Your task to perform on an android device: open device folders in google photos Image 0: 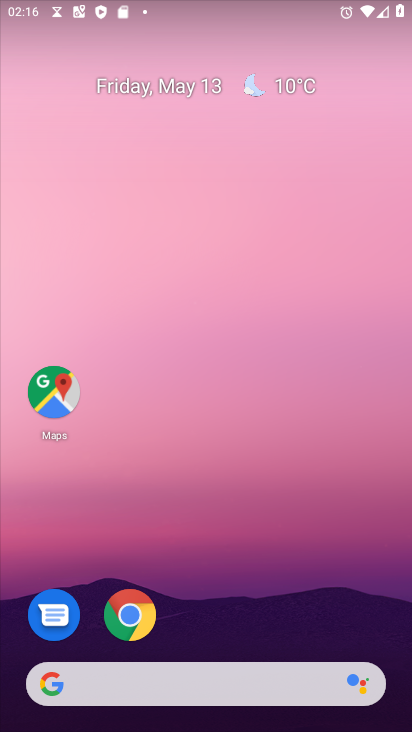
Step 0: drag from (226, 618) to (87, 112)
Your task to perform on an android device: open device folders in google photos Image 1: 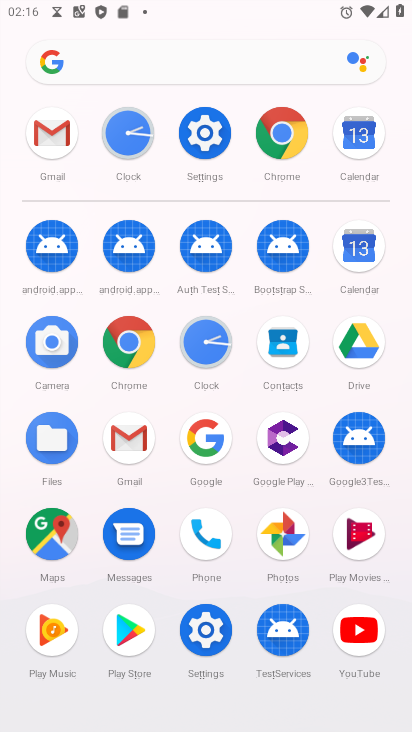
Step 1: click (278, 541)
Your task to perform on an android device: open device folders in google photos Image 2: 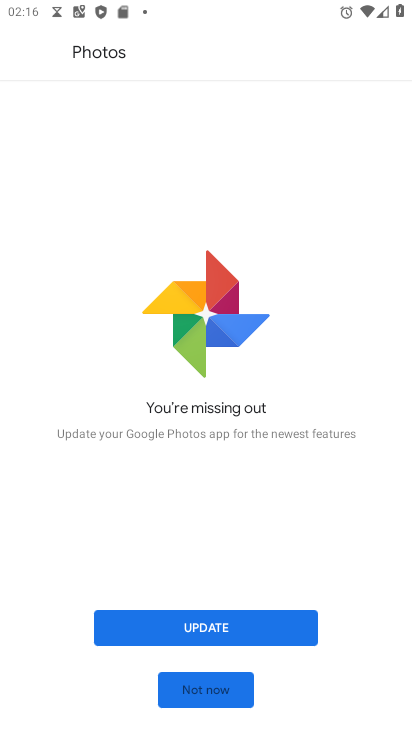
Step 2: click (195, 682)
Your task to perform on an android device: open device folders in google photos Image 3: 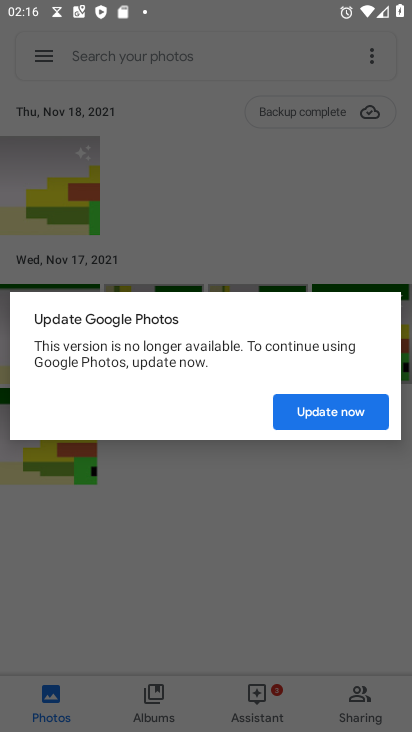
Step 3: press back button
Your task to perform on an android device: open device folders in google photos Image 4: 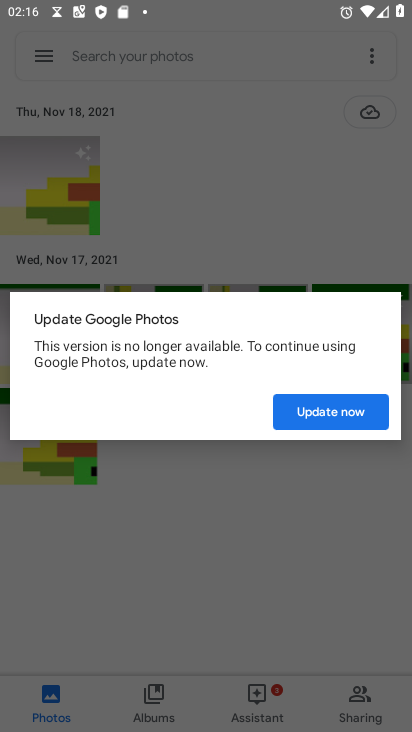
Step 4: click (339, 420)
Your task to perform on an android device: open device folders in google photos Image 5: 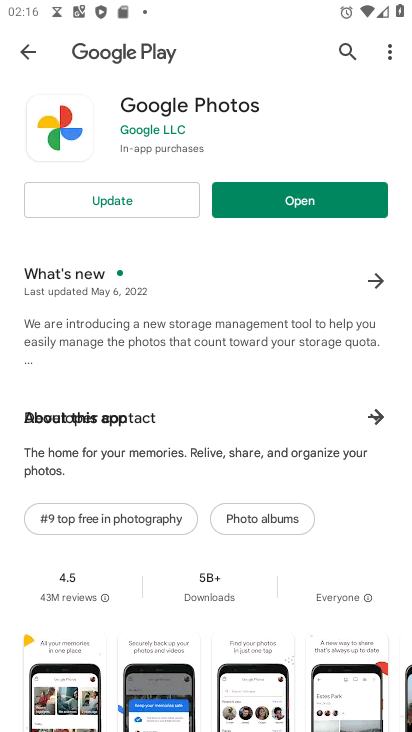
Step 5: press back button
Your task to perform on an android device: open device folders in google photos Image 6: 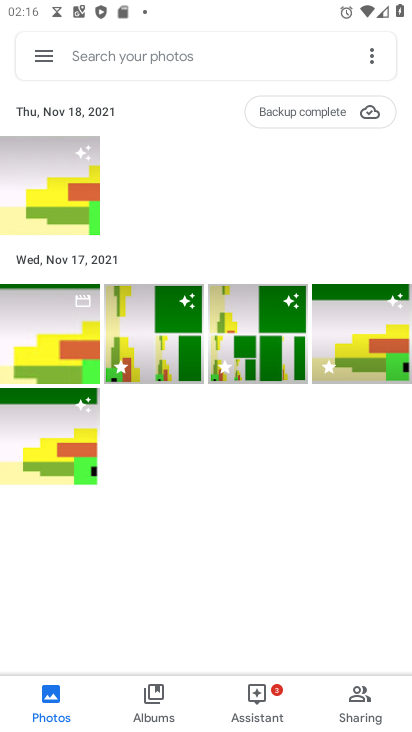
Step 6: click (38, 57)
Your task to perform on an android device: open device folders in google photos Image 7: 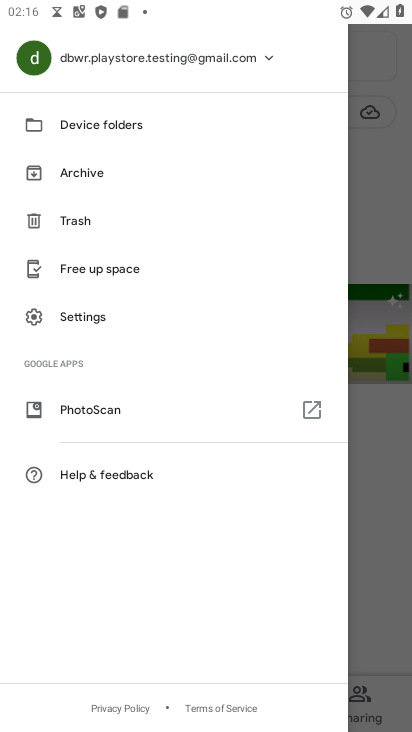
Step 7: click (105, 125)
Your task to perform on an android device: open device folders in google photos Image 8: 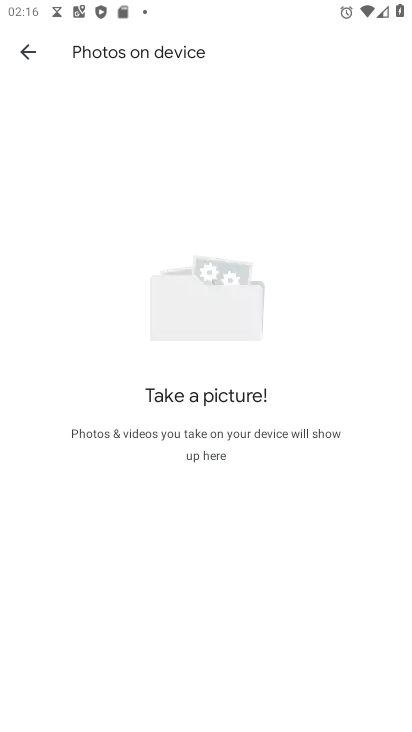
Step 8: task complete